Your task to perform on an android device: What is the news today? Image 0: 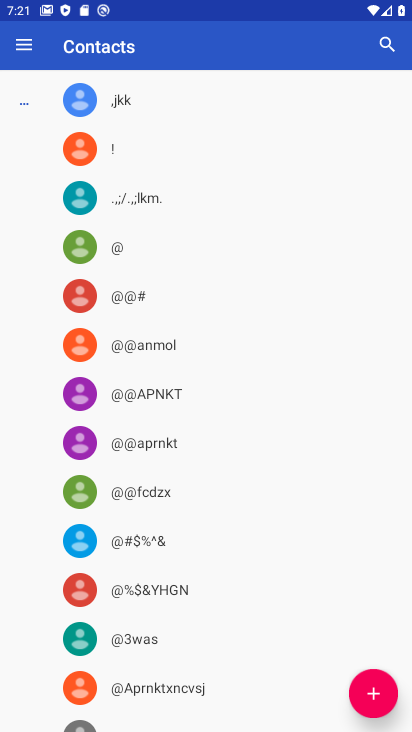
Step 0: press home button
Your task to perform on an android device: What is the news today? Image 1: 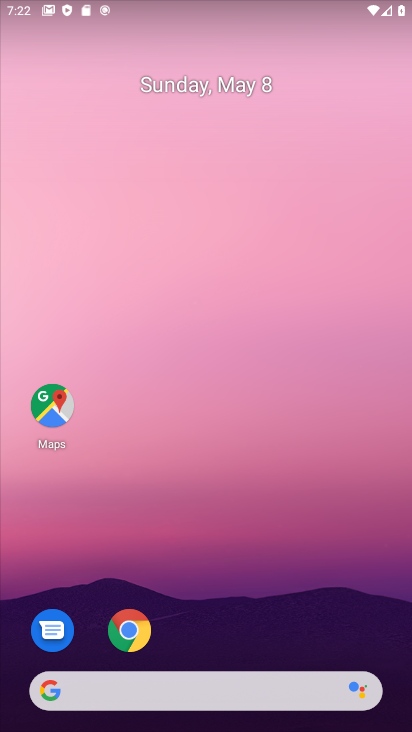
Step 1: click (248, 694)
Your task to perform on an android device: What is the news today? Image 2: 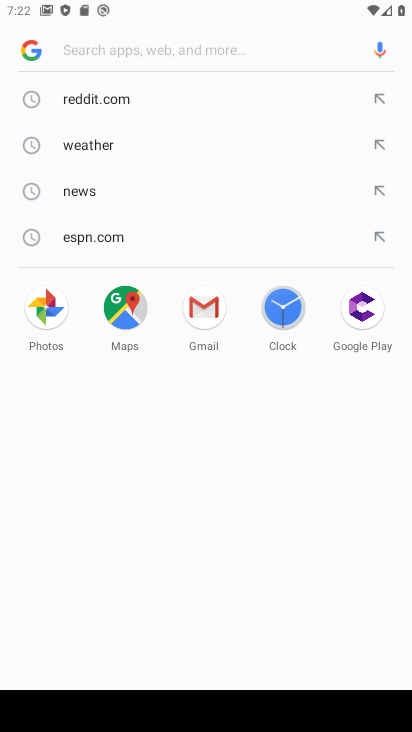
Step 2: drag from (133, 728) to (361, 674)
Your task to perform on an android device: What is the news today? Image 3: 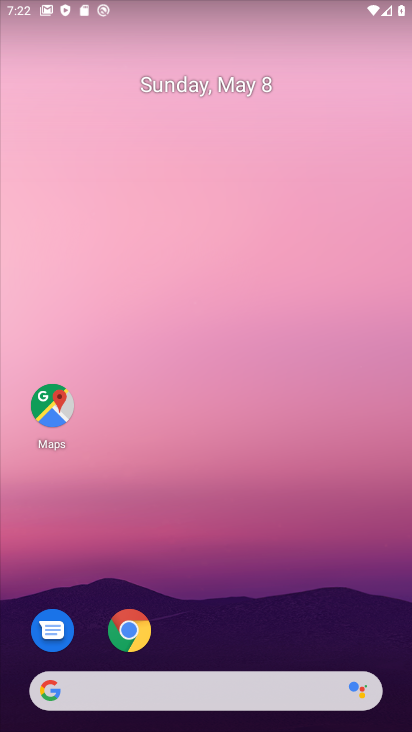
Step 3: type "What is the news today?"
Your task to perform on an android device: What is the news today? Image 4: 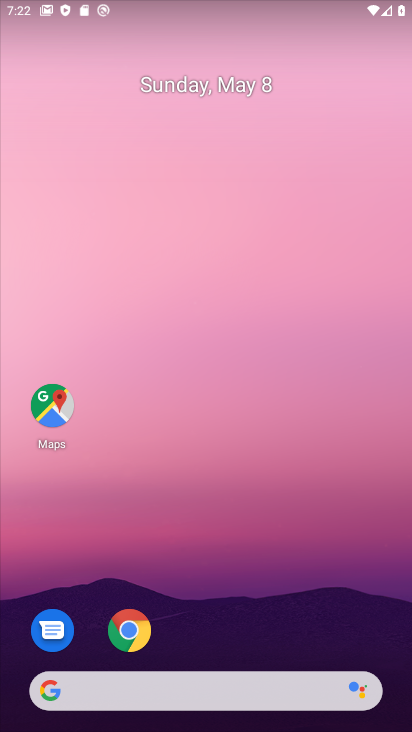
Step 4: click (178, 681)
Your task to perform on an android device: What is the news today? Image 5: 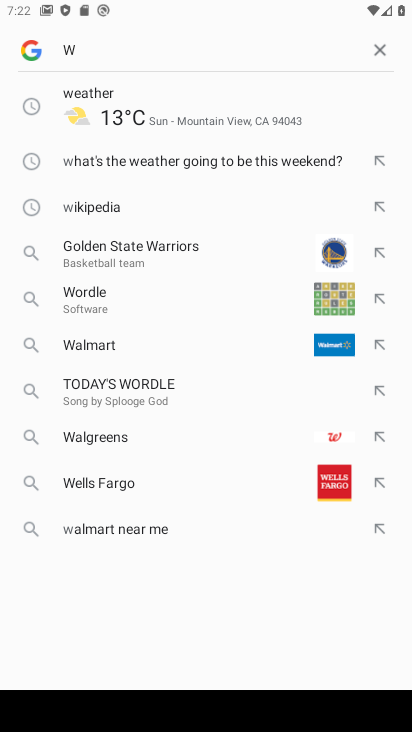
Step 5: click (379, 49)
Your task to perform on an android device: What is the news today? Image 6: 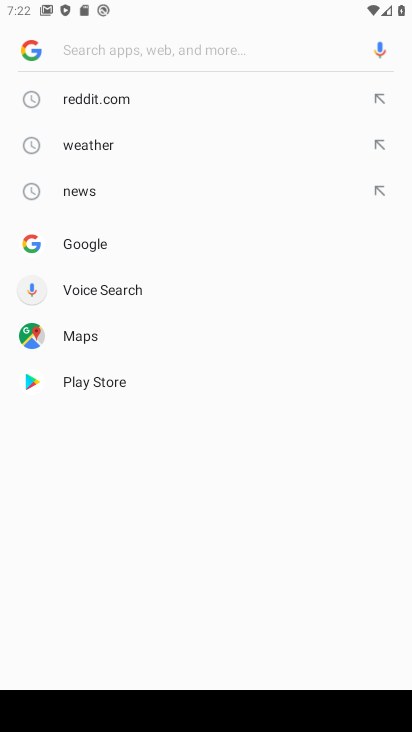
Step 6: type "What is the news today?"
Your task to perform on an android device: What is the news today? Image 7: 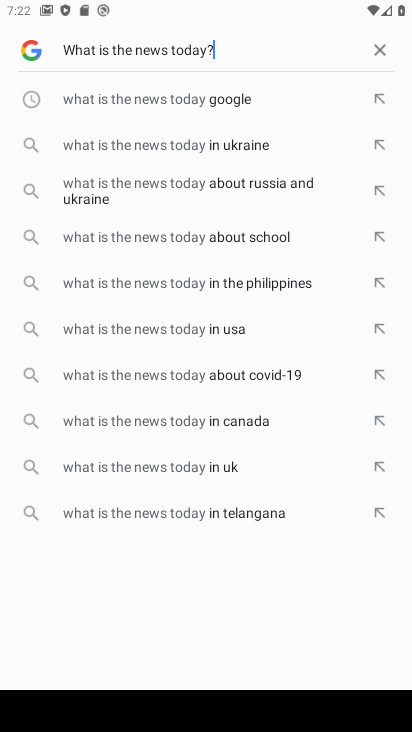
Step 7: click (100, 92)
Your task to perform on an android device: What is the news today? Image 8: 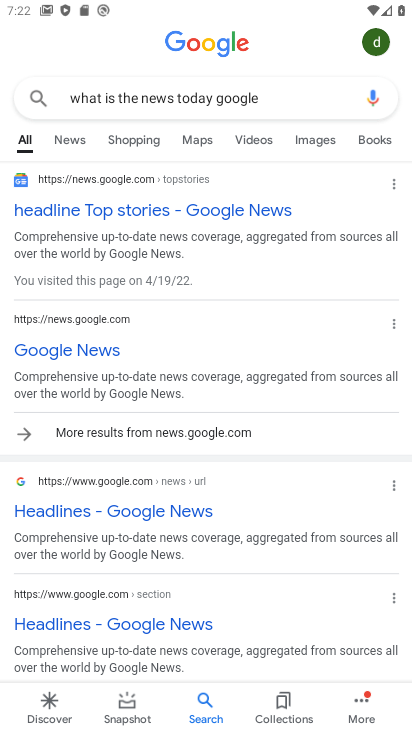
Step 8: click (55, 351)
Your task to perform on an android device: What is the news today? Image 9: 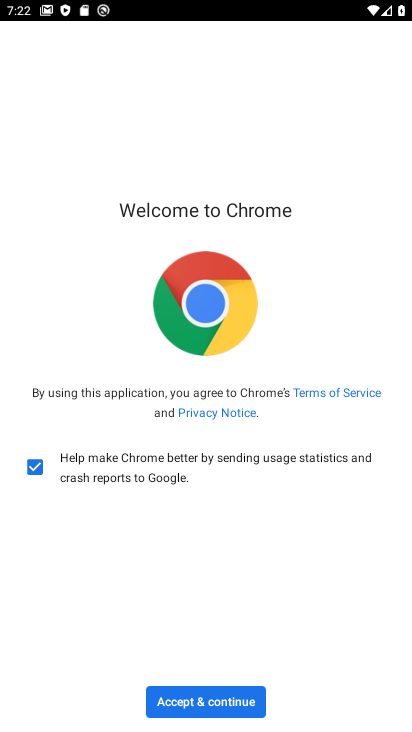
Step 9: click (206, 712)
Your task to perform on an android device: What is the news today? Image 10: 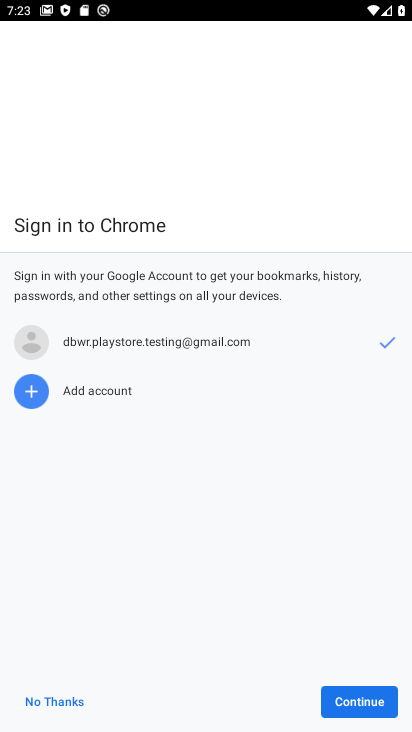
Step 10: click (334, 711)
Your task to perform on an android device: What is the news today? Image 11: 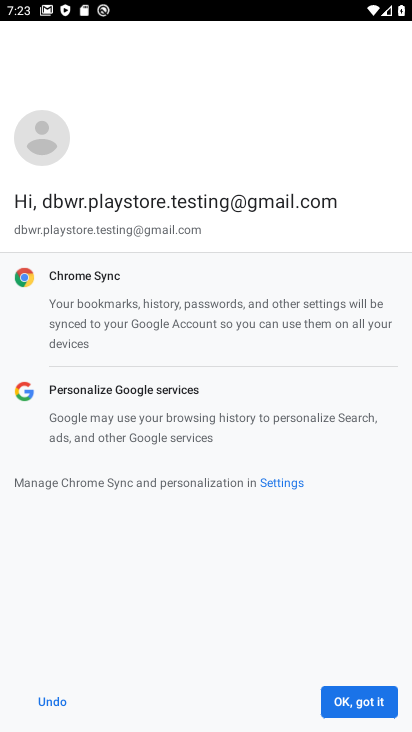
Step 11: click (334, 711)
Your task to perform on an android device: What is the news today? Image 12: 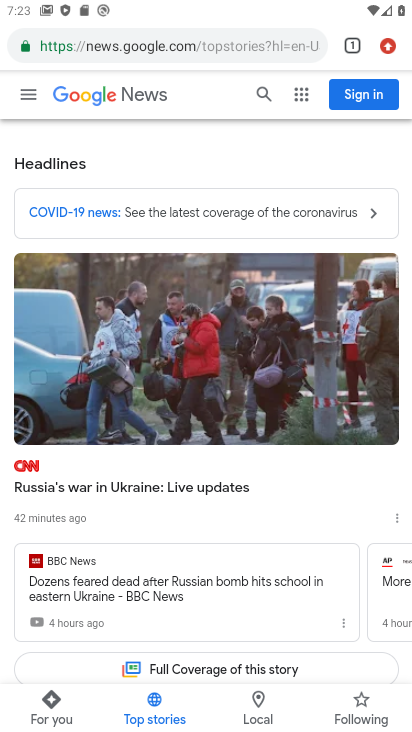
Step 12: task complete